Your task to perform on an android device: turn on bluetooth scan Image 0: 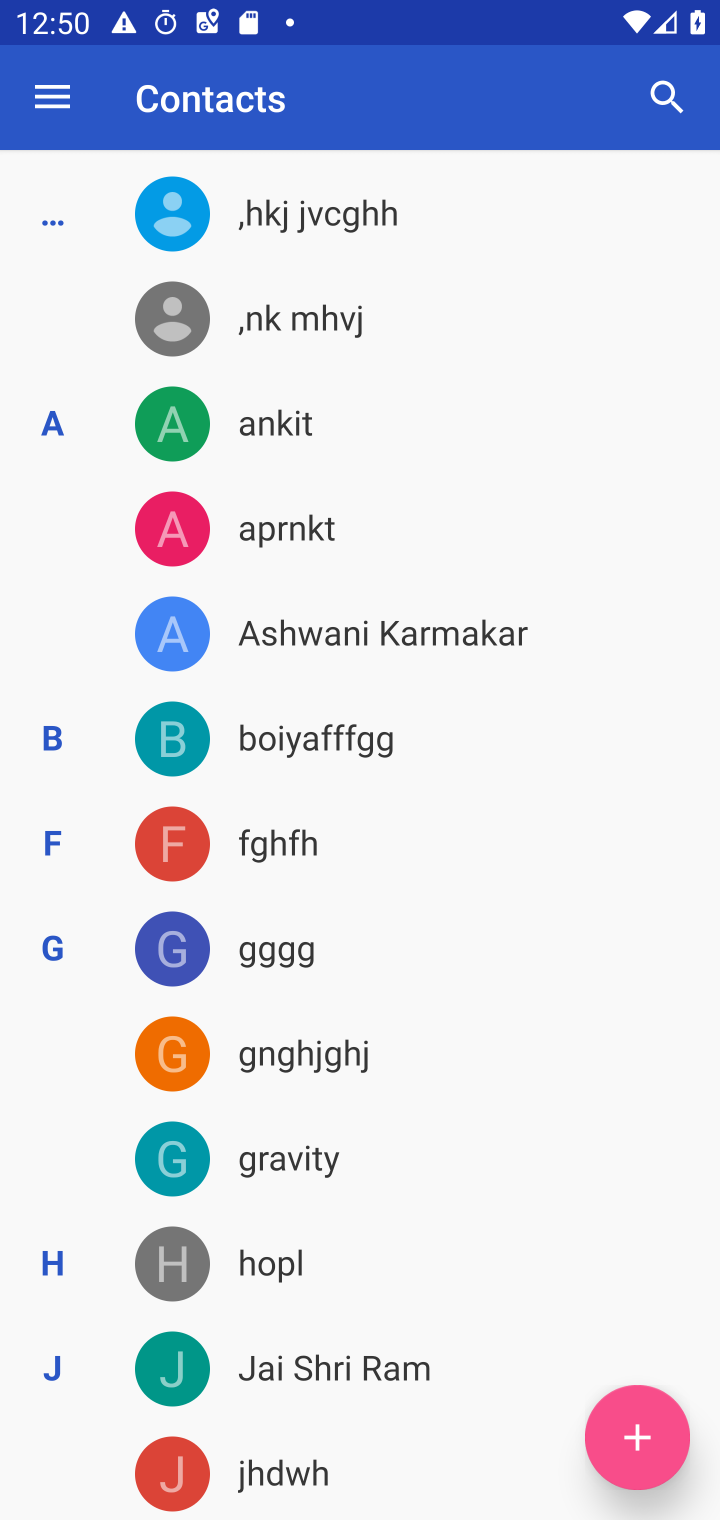
Step 0: press home button
Your task to perform on an android device: turn on bluetooth scan Image 1: 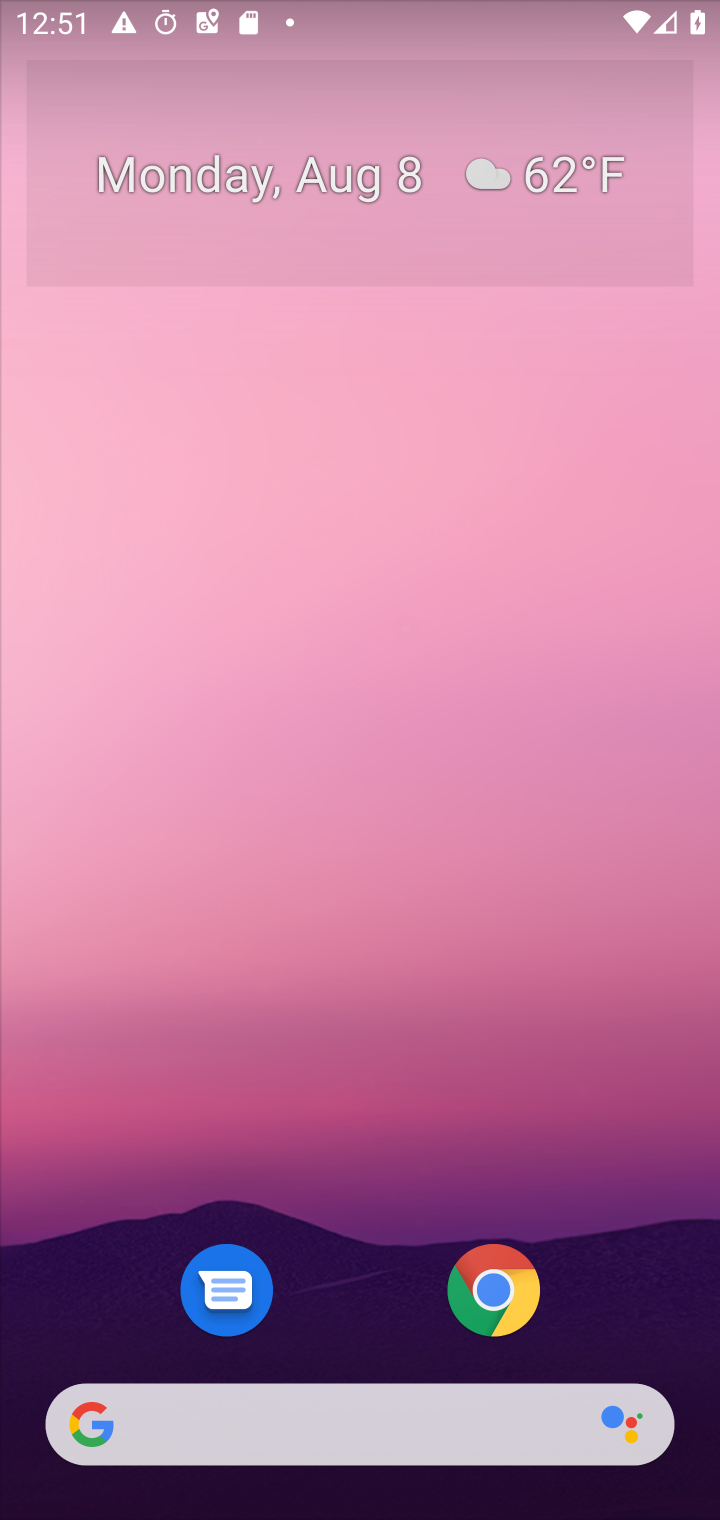
Step 1: drag from (328, 1348) to (457, 446)
Your task to perform on an android device: turn on bluetooth scan Image 2: 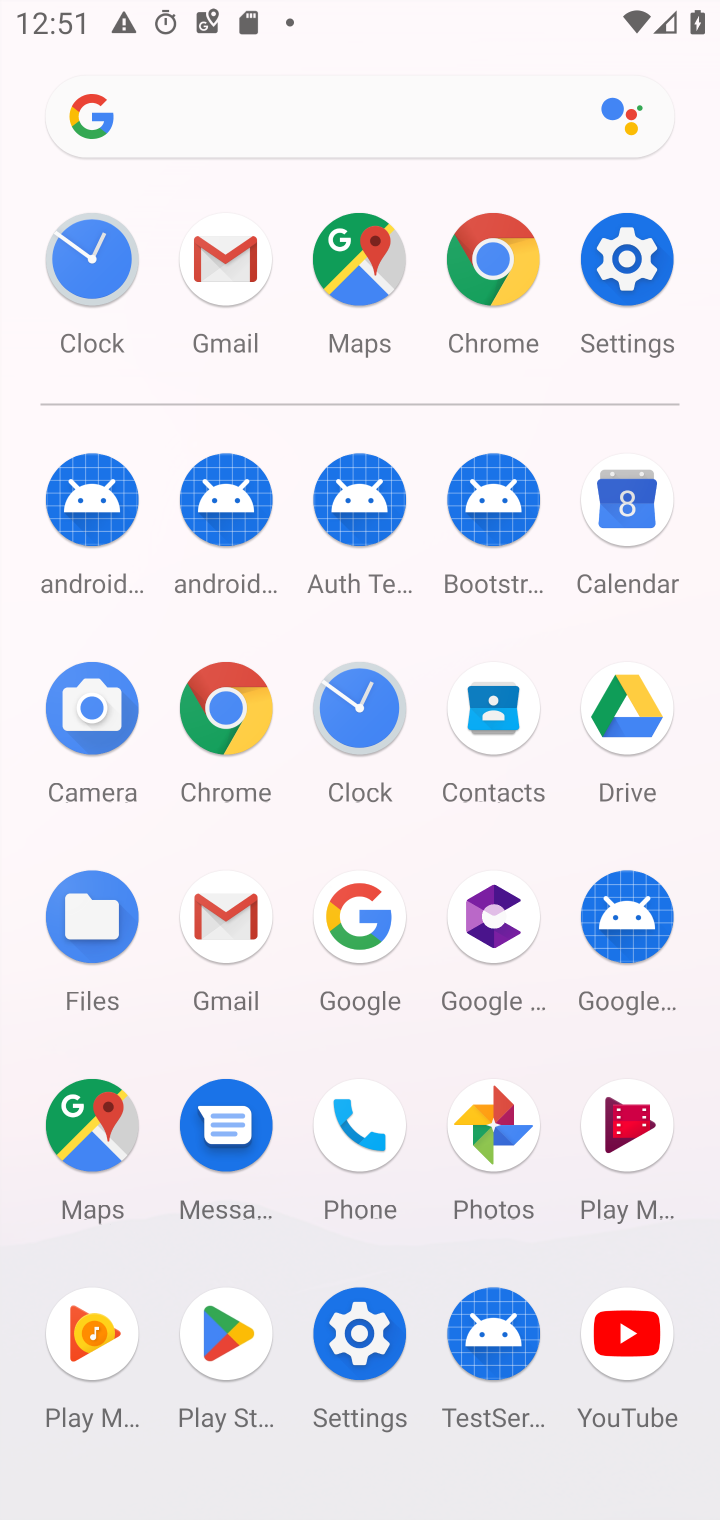
Step 2: click (328, 1351)
Your task to perform on an android device: turn on bluetooth scan Image 3: 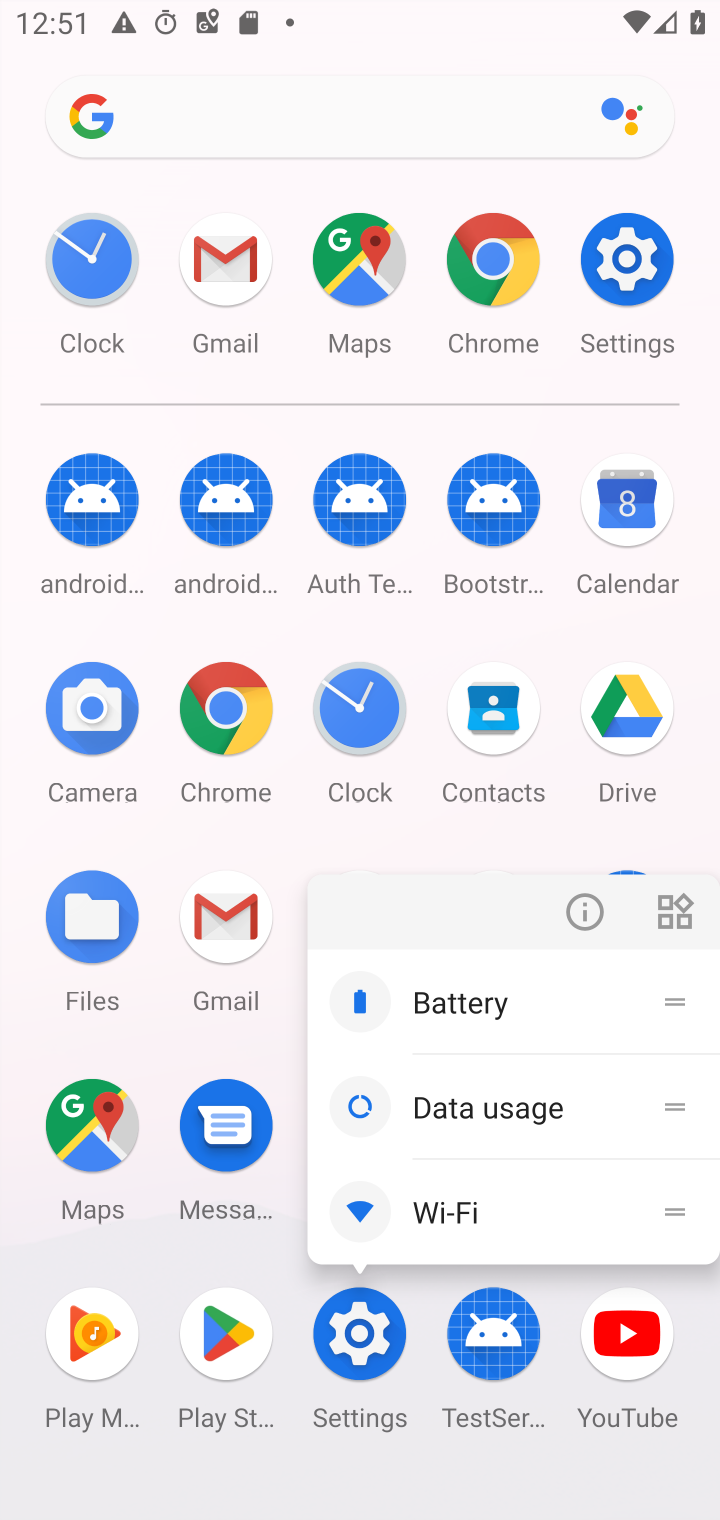
Step 3: click (347, 1359)
Your task to perform on an android device: turn on bluetooth scan Image 4: 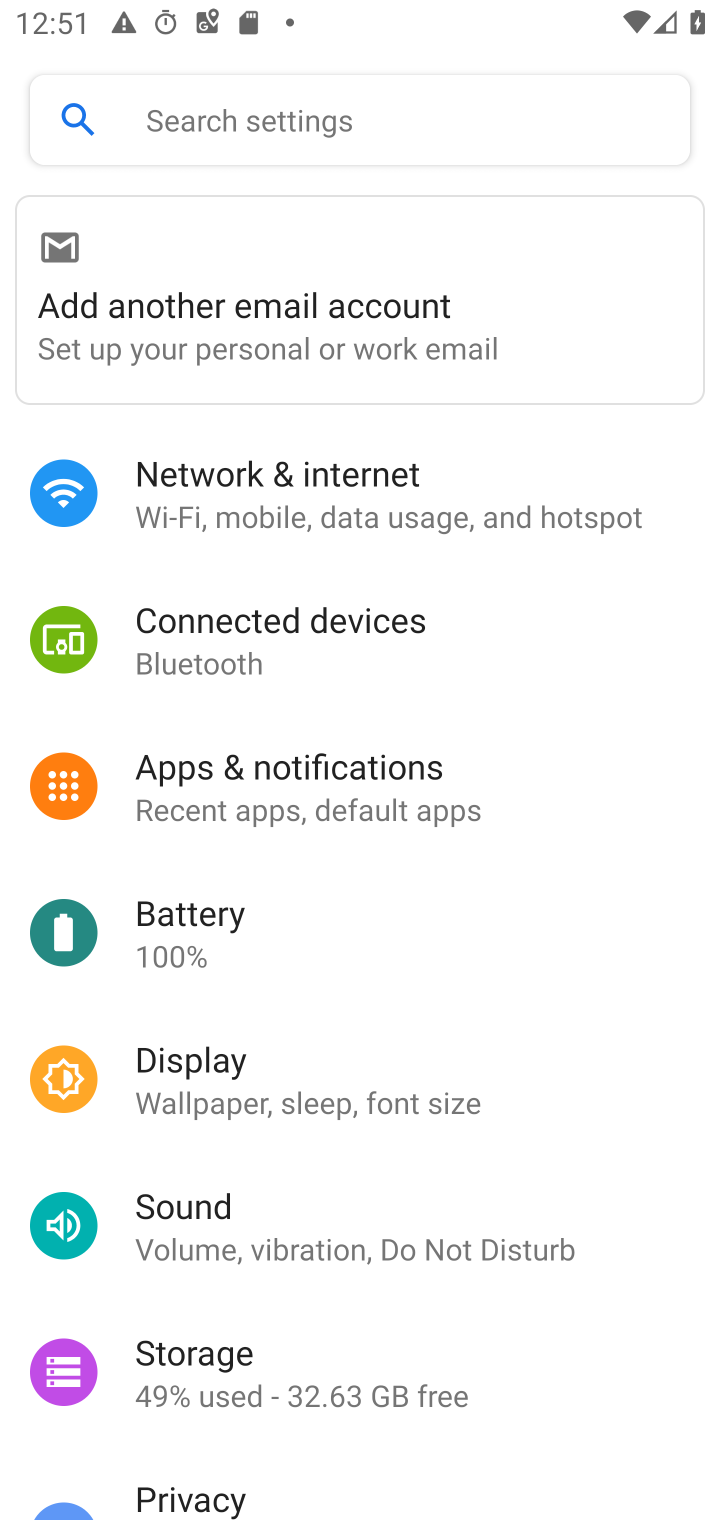
Step 4: drag from (244, 1335) to (320, 432)
Your task to perform on an android device: turn on bluetooth scan Image 5: 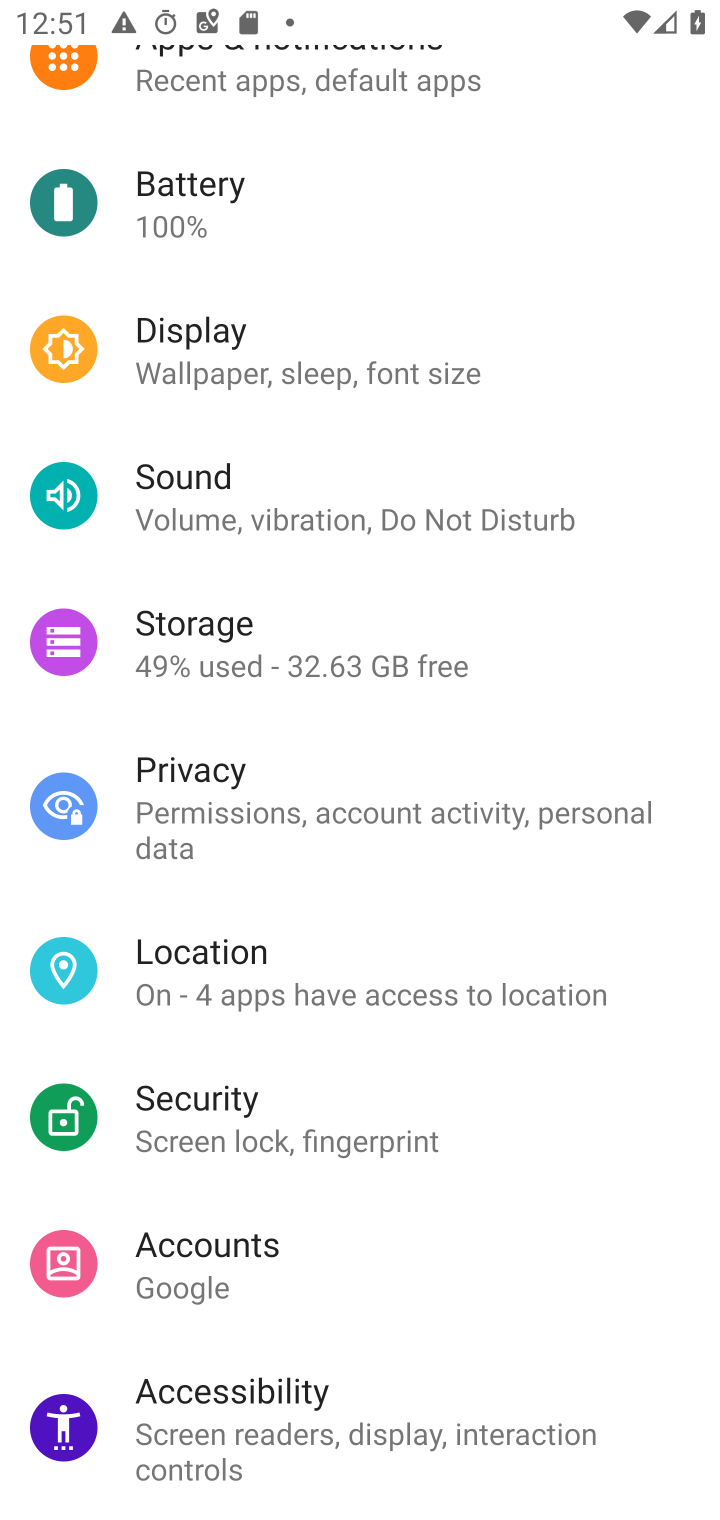
Step 5: click (278, 987)
Your task to perform on an android device: turn on bluetooth scan Image 6: 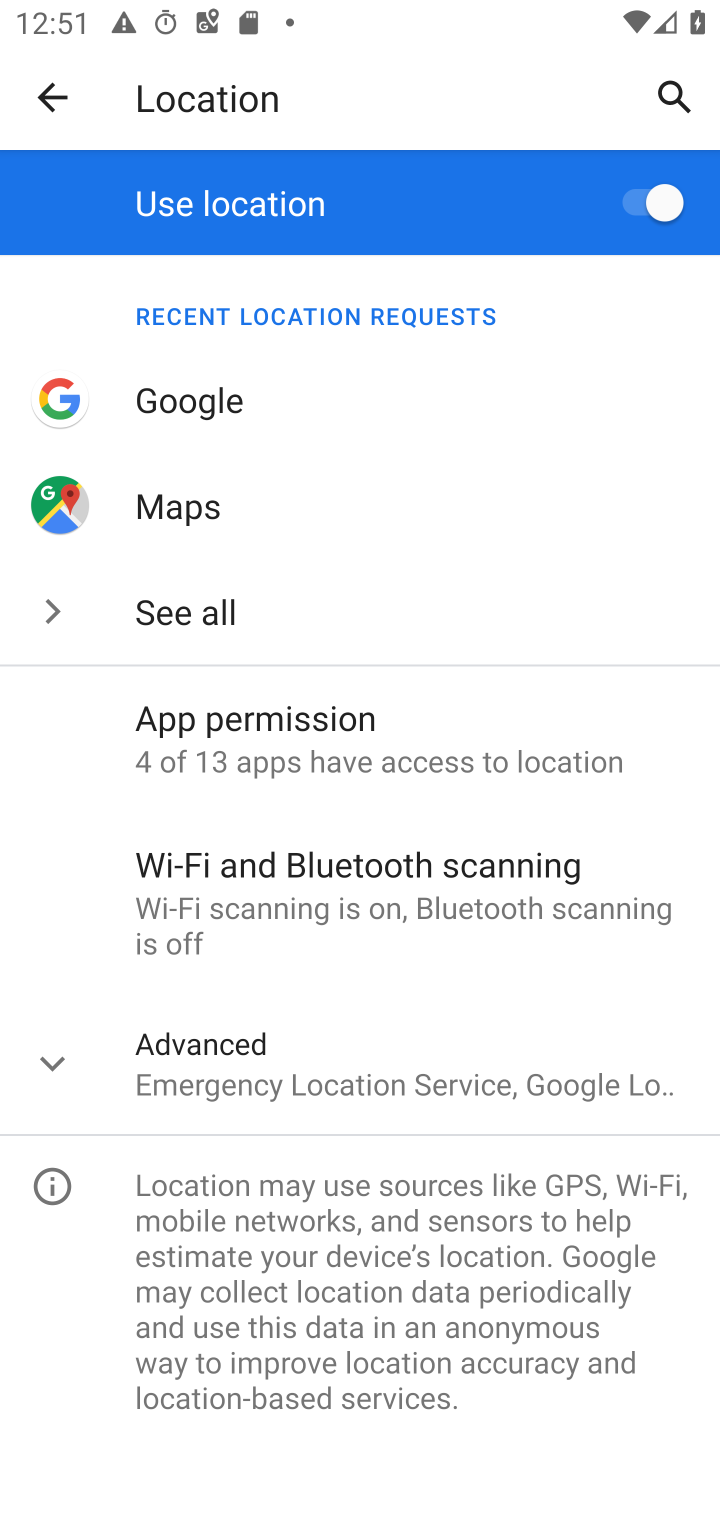
Step 6: click (313, 899)
Your task to perform on an android device: turn on bluetooth scan Image 7: 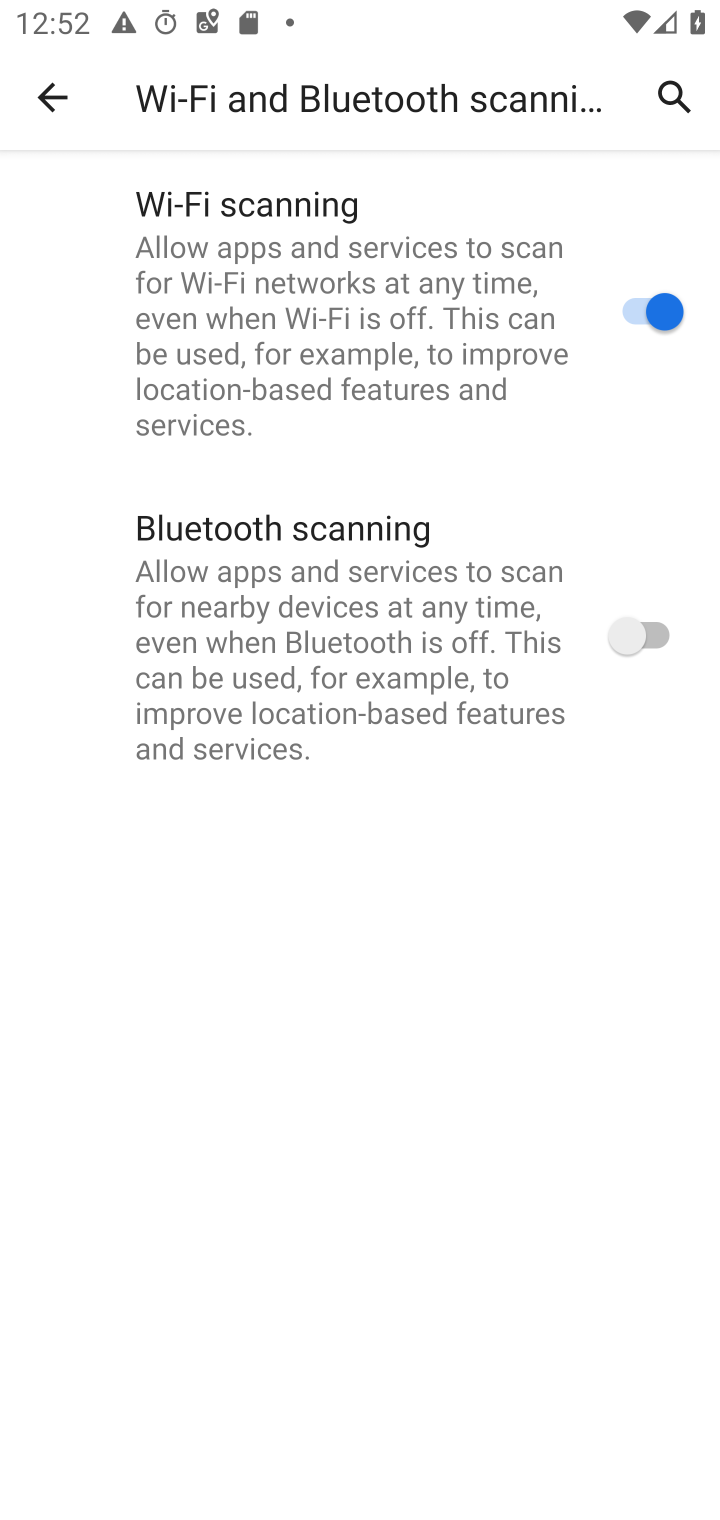
Step 7: click (667, 637)
Your task to perform on an android device: turn on bluetooth scan Image 8: 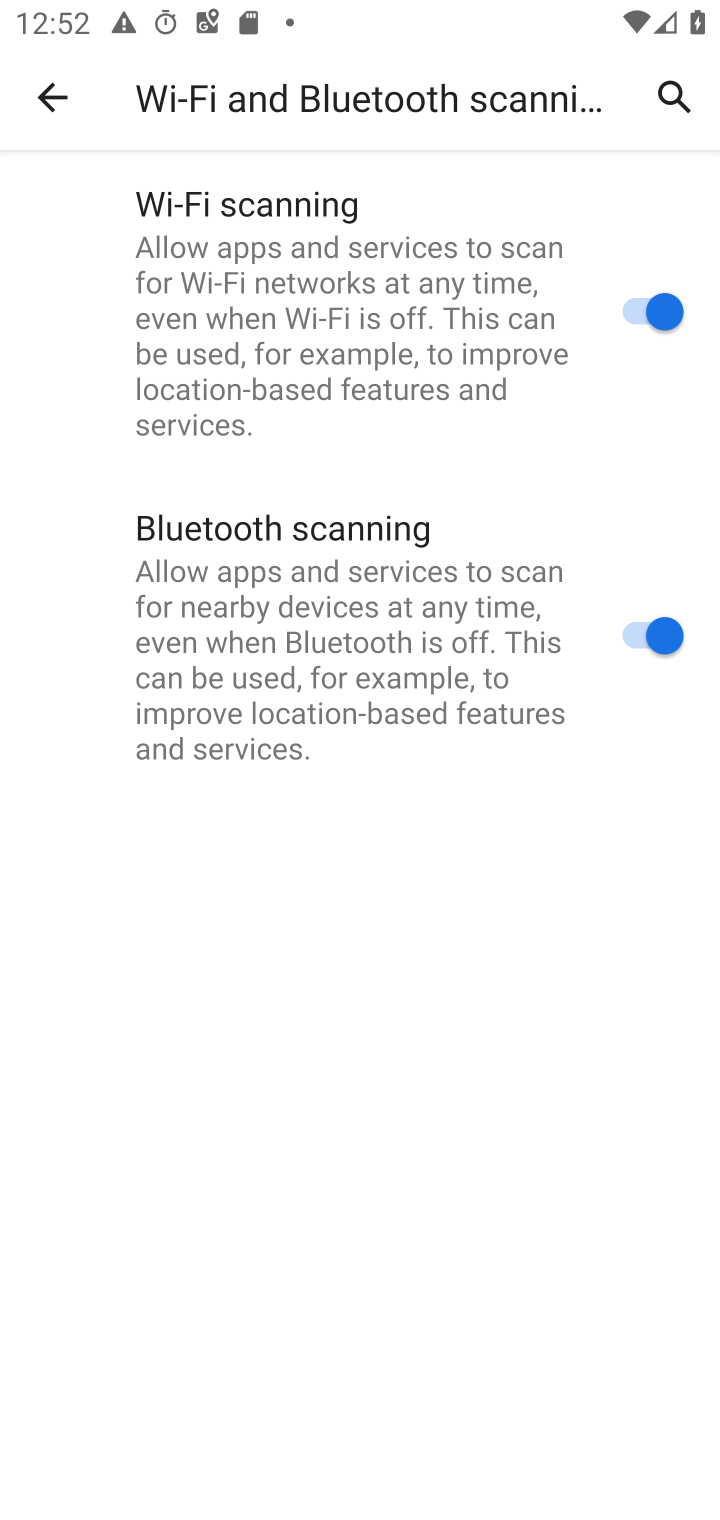
Step 8: task complete